Your task to perform on an android device: Go to location settings Image 0: 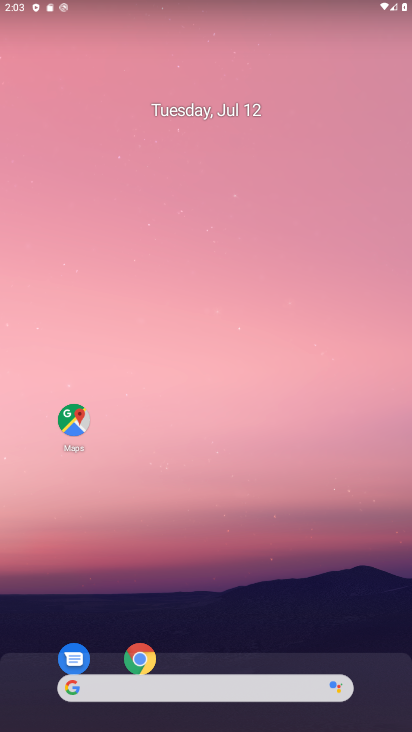
Step 0: drag from (228, 567) to (324, 176)
Your task to perform on an android device: Go to location settings Image 1: 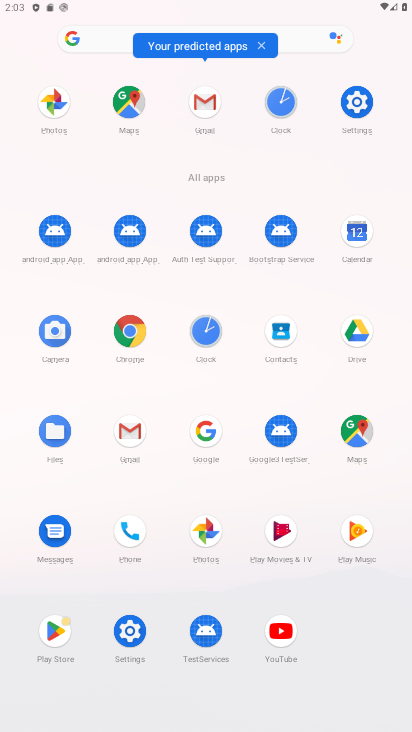
Step 1: click (134, 630)
Your task to perform on an android device: Go to location settings Image 2: 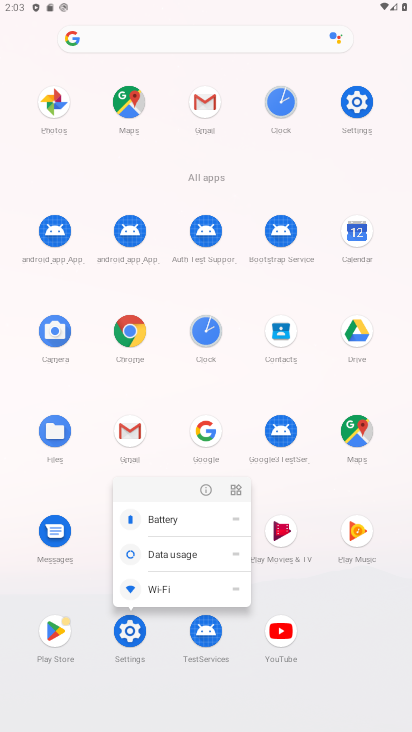
Step 2: click (140, 639)
Your task to perform on an android device: Go to location settings Image 3: 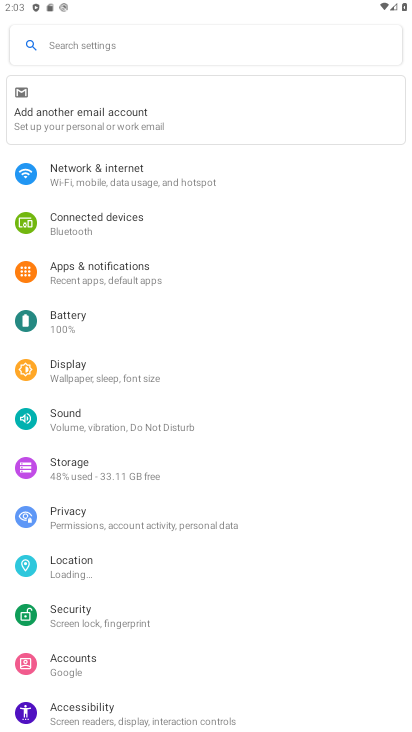
Step 3: click (102, 570)
Your task to perform on an android device: Go to location settings Image 4: 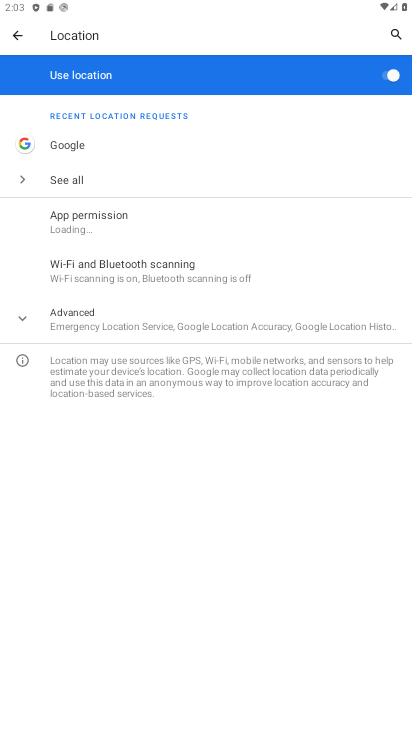
Step 4: click (138, 332)
Your task to perform on an android device: Go to location settings Image 5: 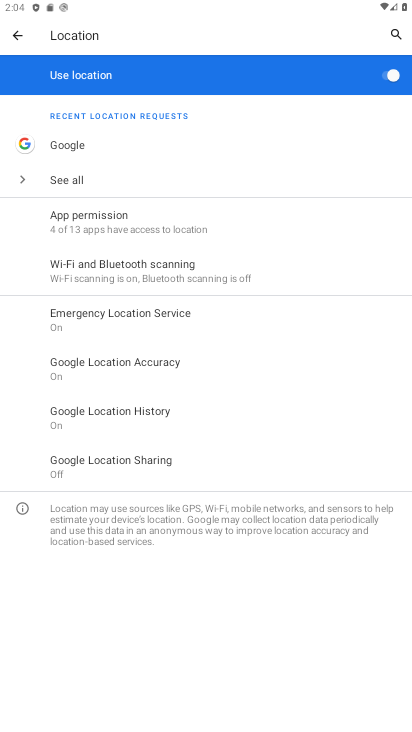
Step 5: task complete